Your task to perform on an android device: Search for pizza restaurants on Maps Image 0: 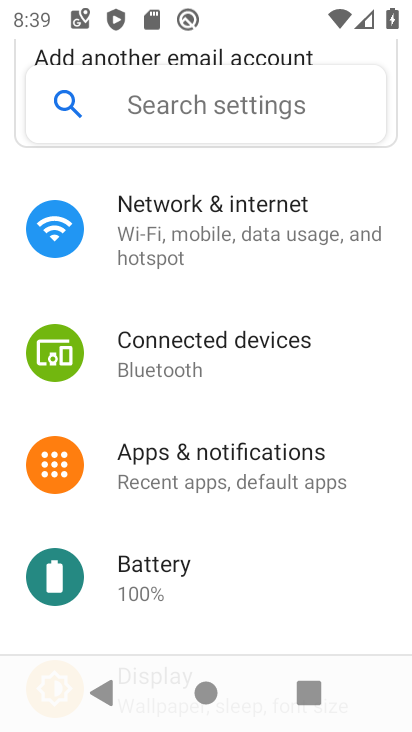
Step 0: press home button
Your task to perform on an android device: Search for pizza restaurants on Maps Image 1: 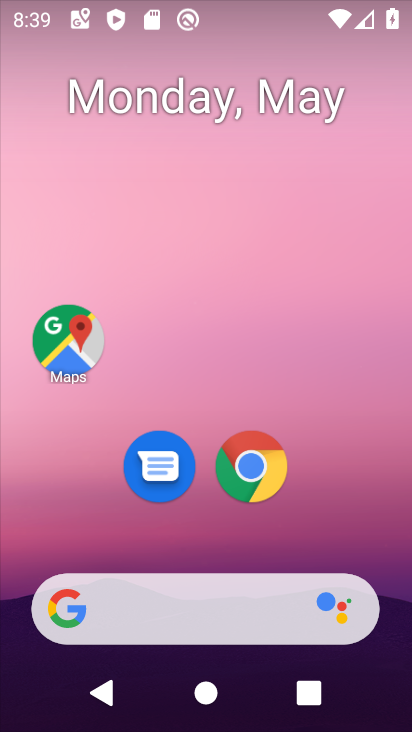
Step 1: drag from (239, 638) to (370, 77)
Your task to perform on an android device: Search for pizza restaurants on Maps Image 2: 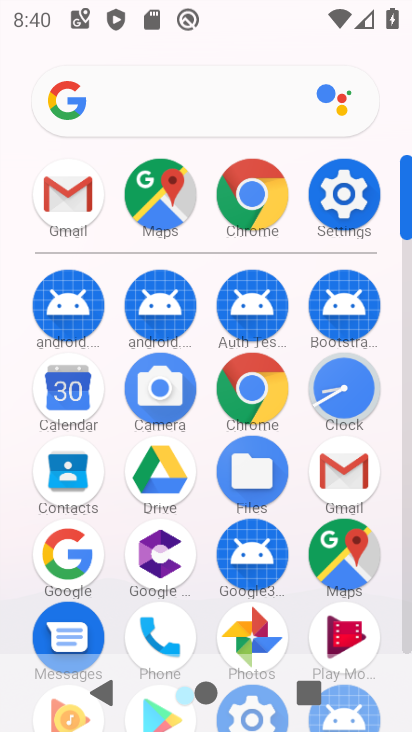
Step 2: click (176, 180)
Your task to perform on an android device: Search for pizza restaurants on Maps Image 3: 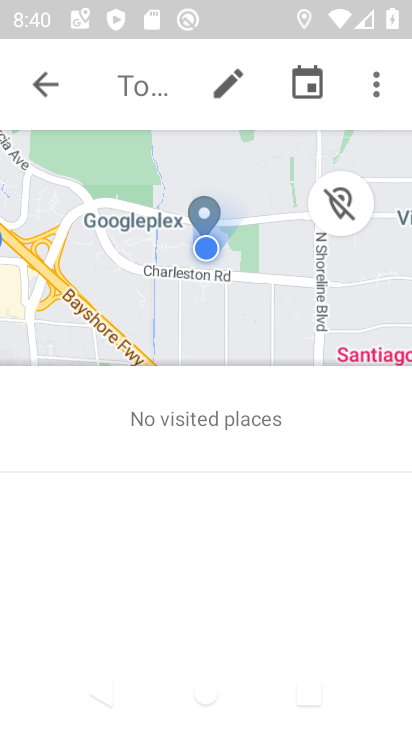
Step 3: click (55, 82)
Your task to perform on an android device: Search for pizza restaurants on Maps Image 4: 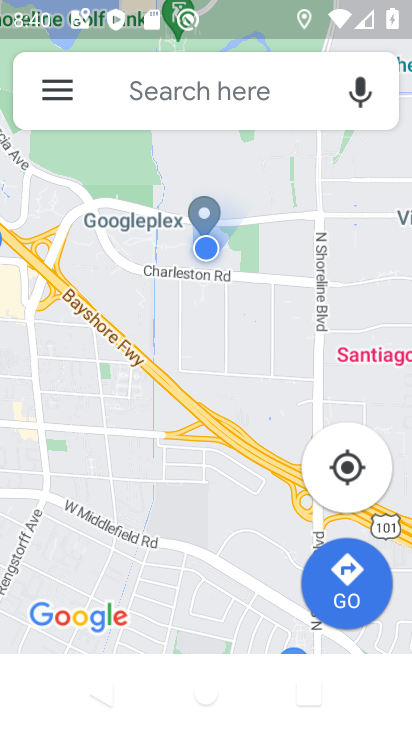
Step 4: click (181, 116)
Your task to perform on an android device: Search for pizza restaurants on Maps Image 5: 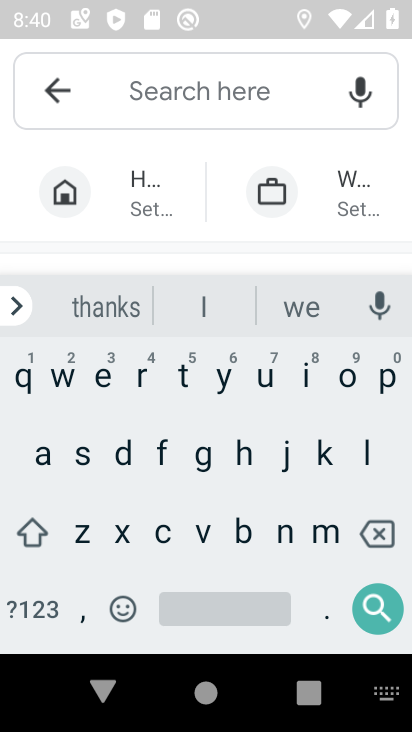
Step 5: click (379, 389)
Your task to perform on an android device: Search for pizza restaurants on Maps Image 6: 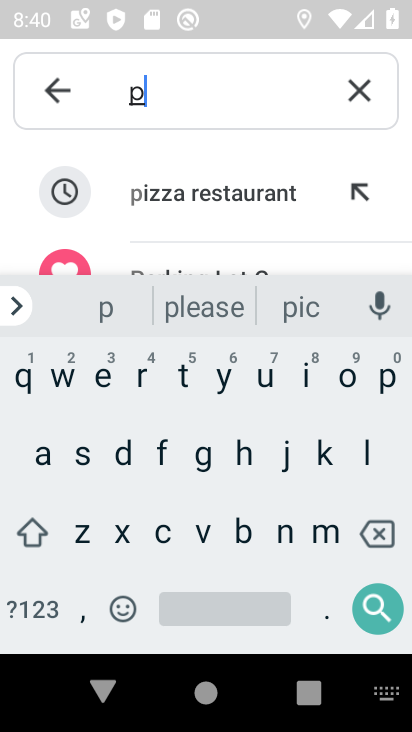
Step 6: click (184, 188)
Your task to perform on an android device: Search for pizza restaurants on Maps Image 7: 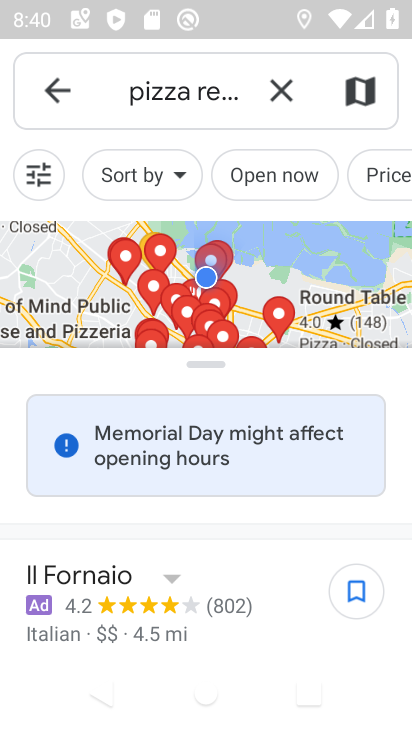
Step 7: click (112, 297)
Your task to perform on an android device: Search for pizza restaurants on Maps Image 8: 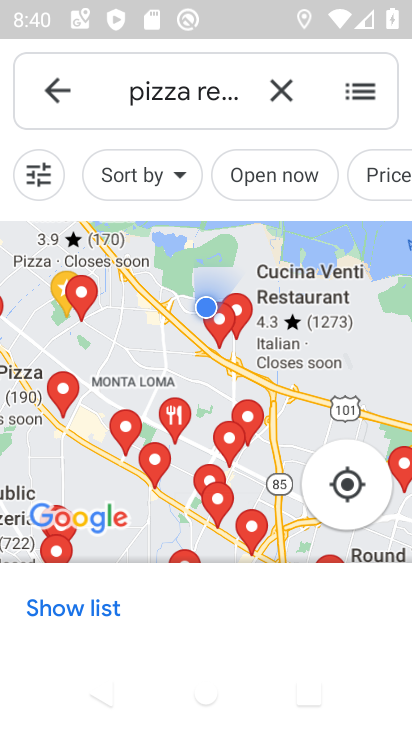
Step 8: task complete